Your task to perform on an android device: Open internet settings Image 0: 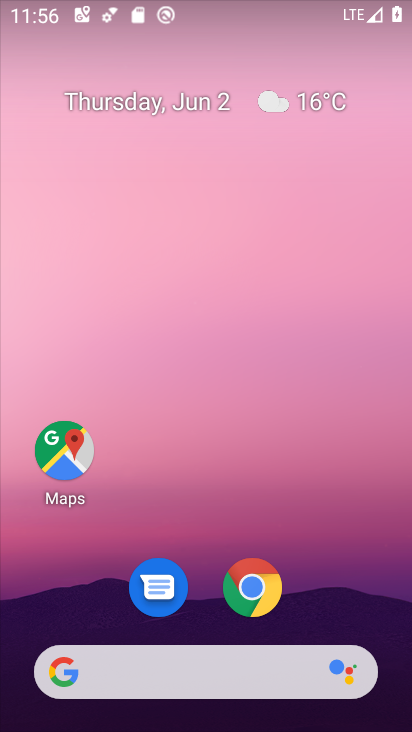
Step 0: drag from (248, 495) to (213, 5)
Your task to perform on an android device: Open internet settings Image 1: 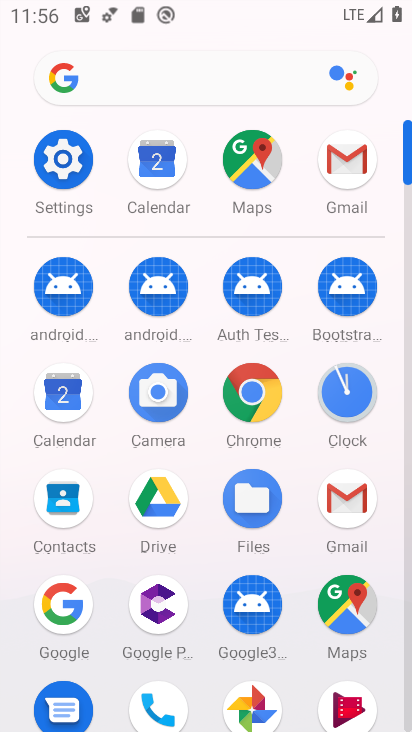
Step 1: click (62, 167)
Your task to perform on an android device: Open internet settings Image 2: 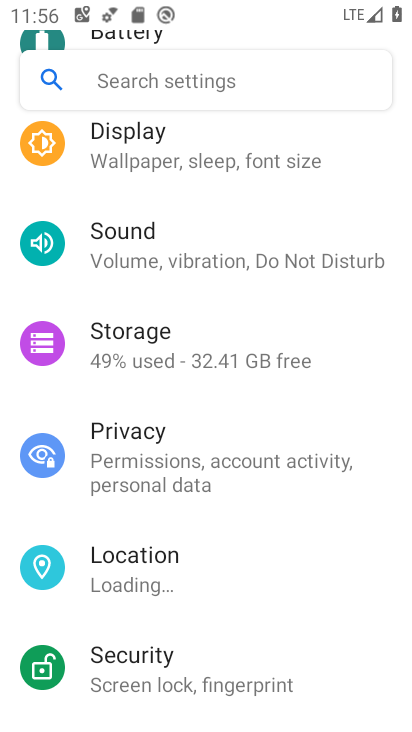
Step 2: drag from (221, 217) to (205, 723)
Your task to perform on an android device: Open internet settings Image 3: 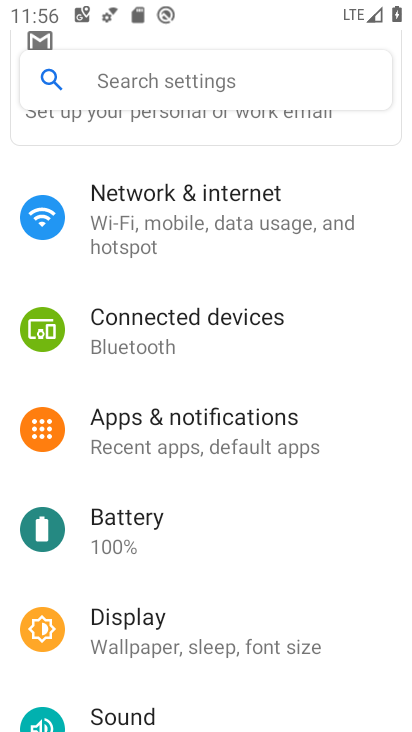
Step 3: click (262, 199)
Your task to perform on an android device: Open internet settings Image 4: 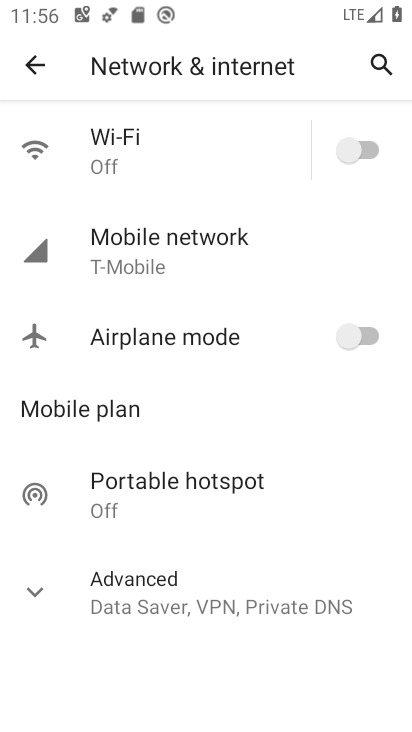
Step 4: task complete